Your task to perform on an android device: Add "dell alienware" to the cart on bestbuy.com, then select checkout. Image 0: 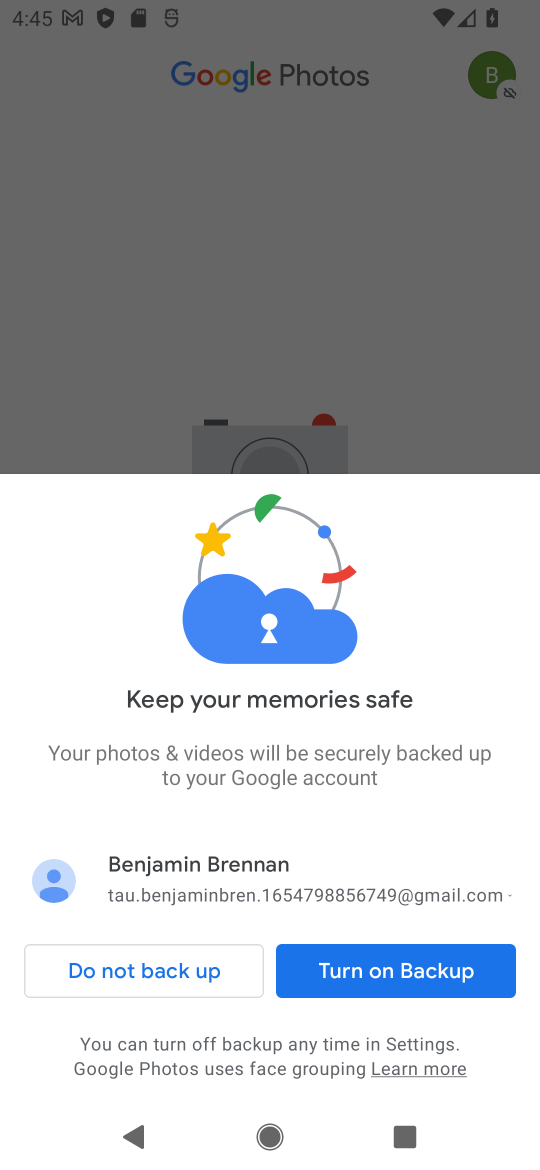
Step 0: press home button
Your task to perform on an android device: Add "dell alienware" to the cart on bestbuy.com, then select checkout. Image 1: 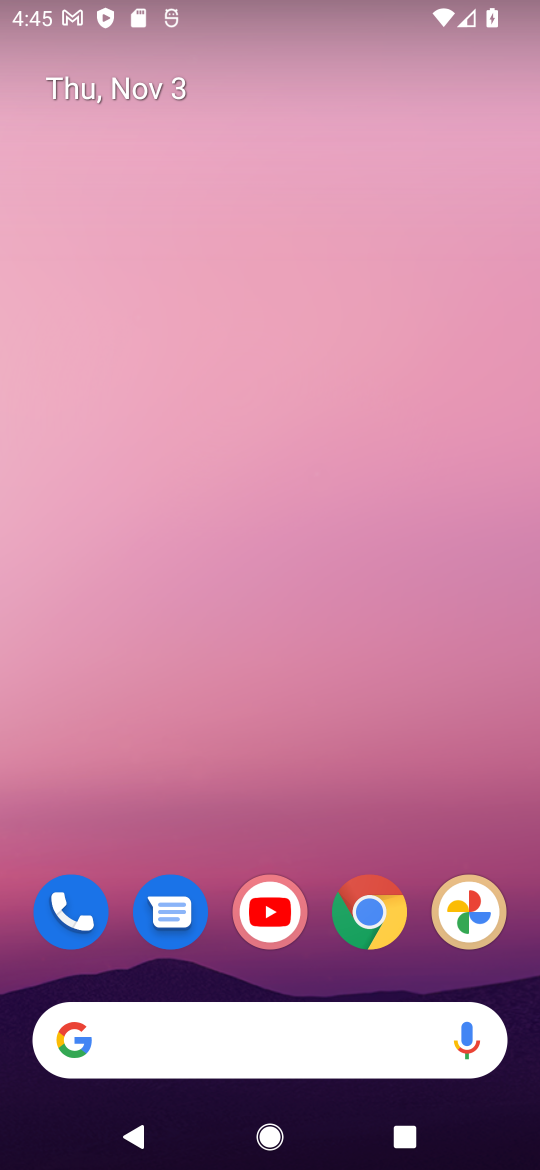
Step 1: click (360, 921)
Your task to perform on an android device: Add "dell alienware" to the cart on bestbuy.com, then select checkout. Image 2: 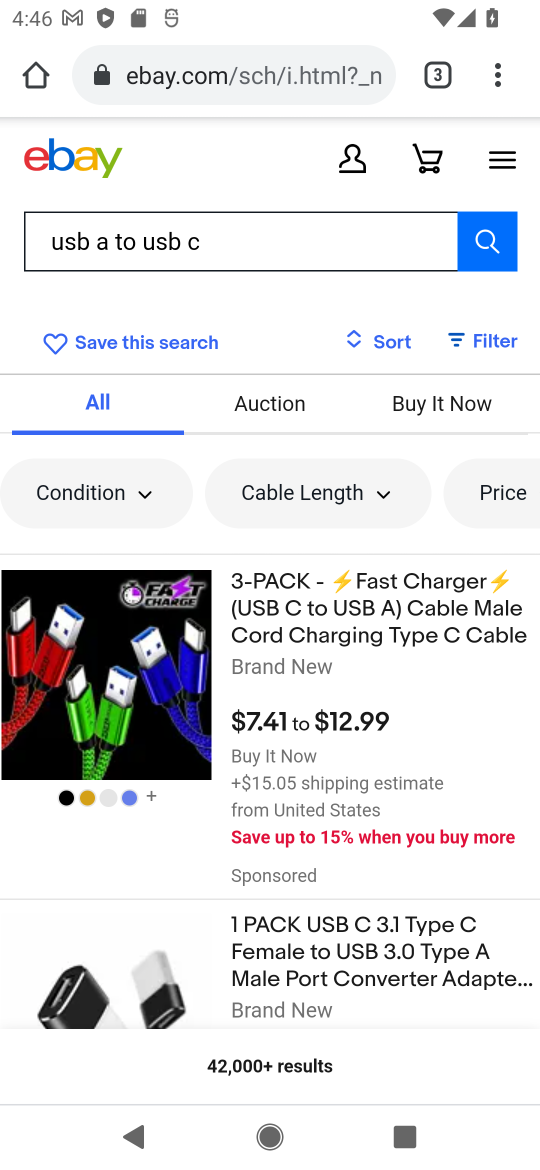
Step 2: click (439, 71)
Your task to perform on an android device: Add "dell alienware" to the cart on bestbuy.com, then select checkout. Image 3: 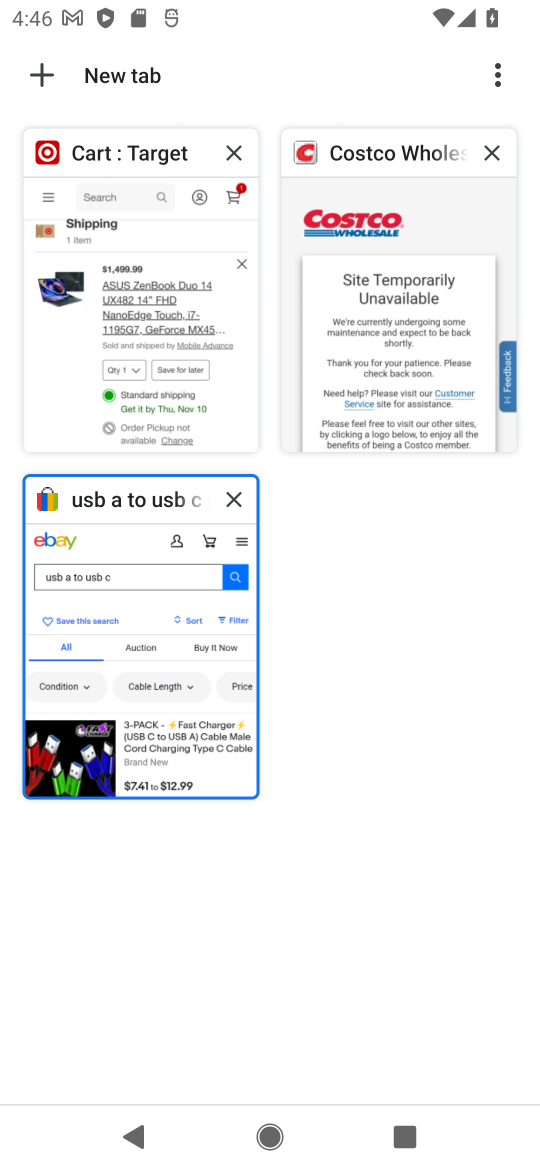
Step 3: click (51, 65)
Your task to perform on an android device: Add "dell alienware" to the cart on bestbuy.com, then select checkout. Image 4: 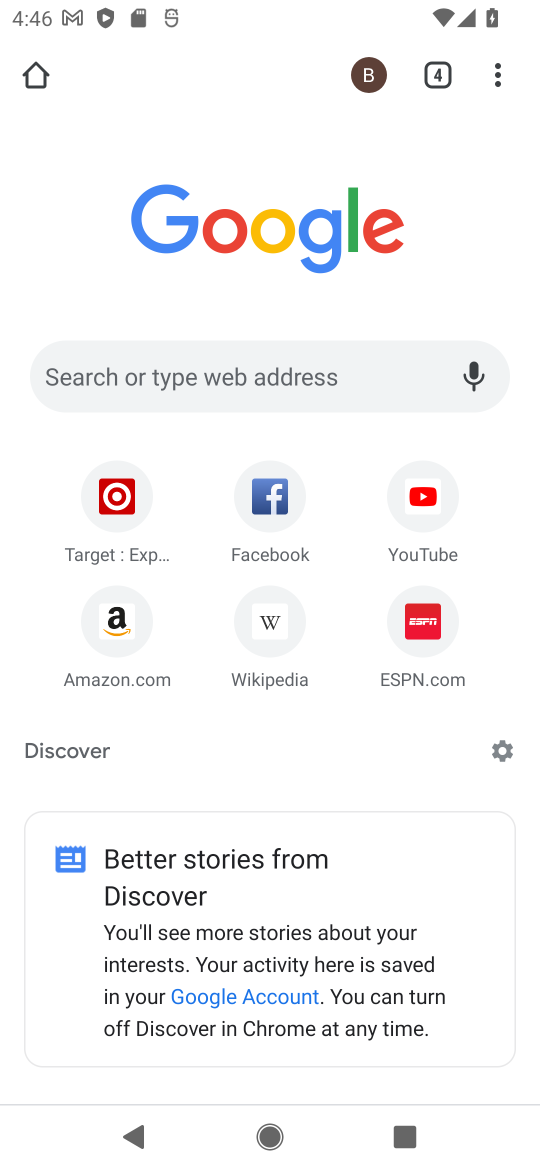
Step 4: click (180, 382)
Your task to perform on an android device: Add "dell alienware" to the cart on bestbuy.com, then select checkout. Image 5: 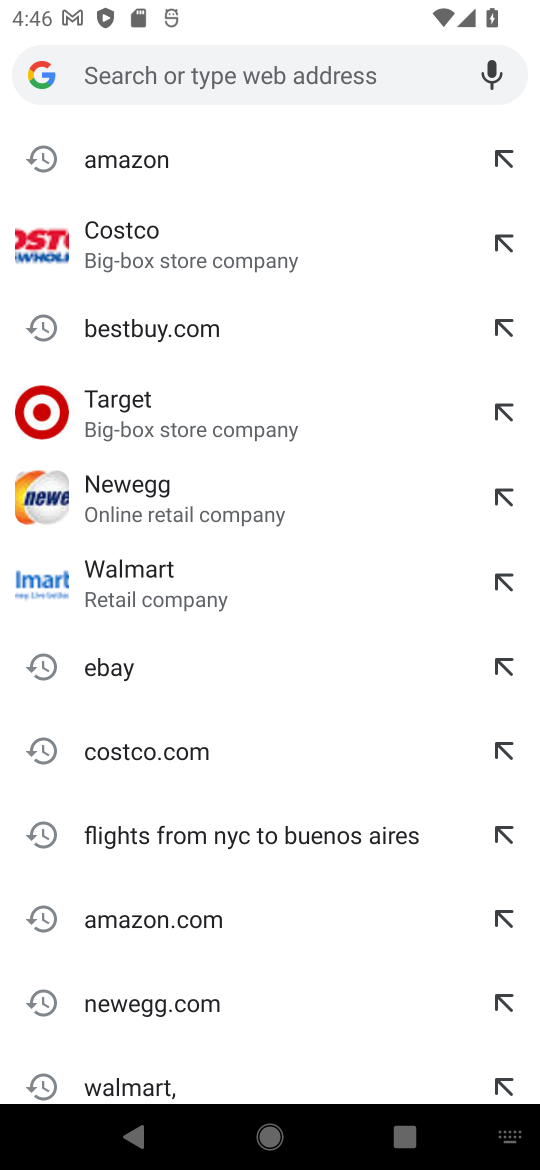
Step 5: click (165, 326)
Your task to perform on an android device: Add "dell alienware" to the cart on bestbuy.com, then select checkout. Image 6: 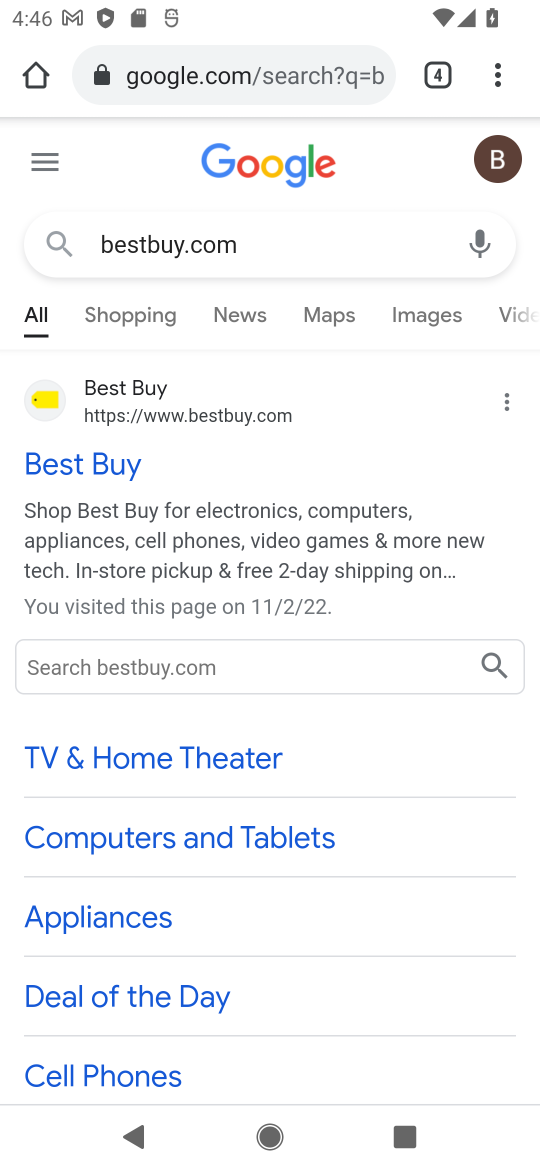
Step 6: click (100, 459)
Your task to perform on an android device: Add "dell alienware" to the cart on bestbuy.com, then select checkout. Image 7: 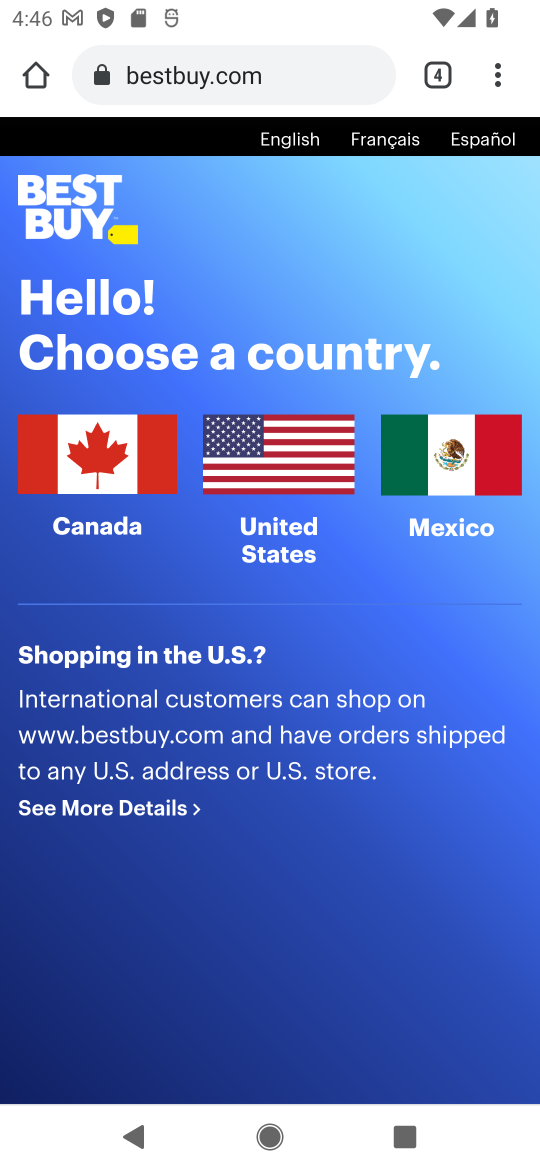
Step 7: task complete